Your task to perform on an android device: What is the capital of Sweden? Image 0: 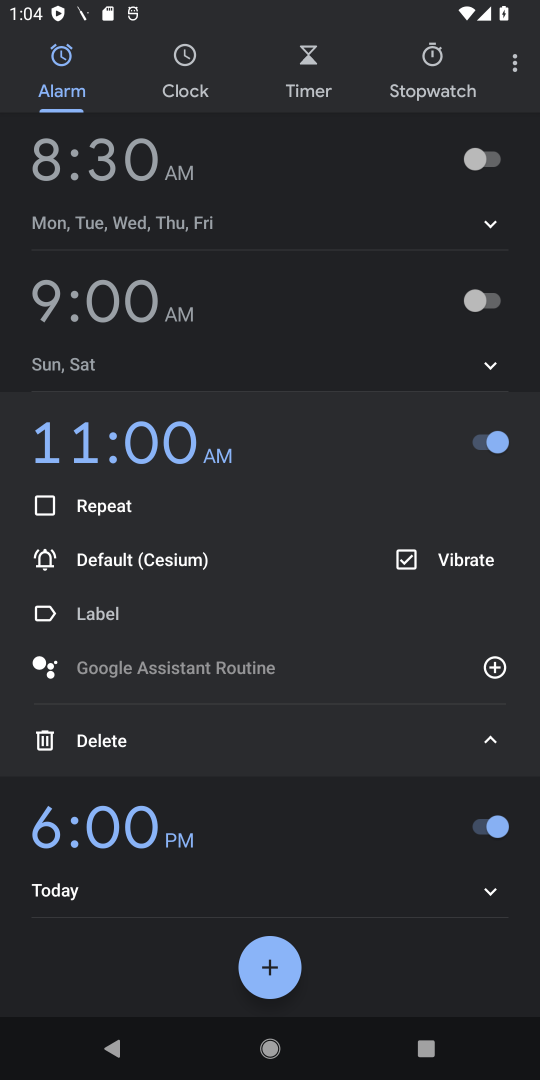
Step 0: press home button
Your task to perform on an android device: What is the capital of Sweden? Image 1: 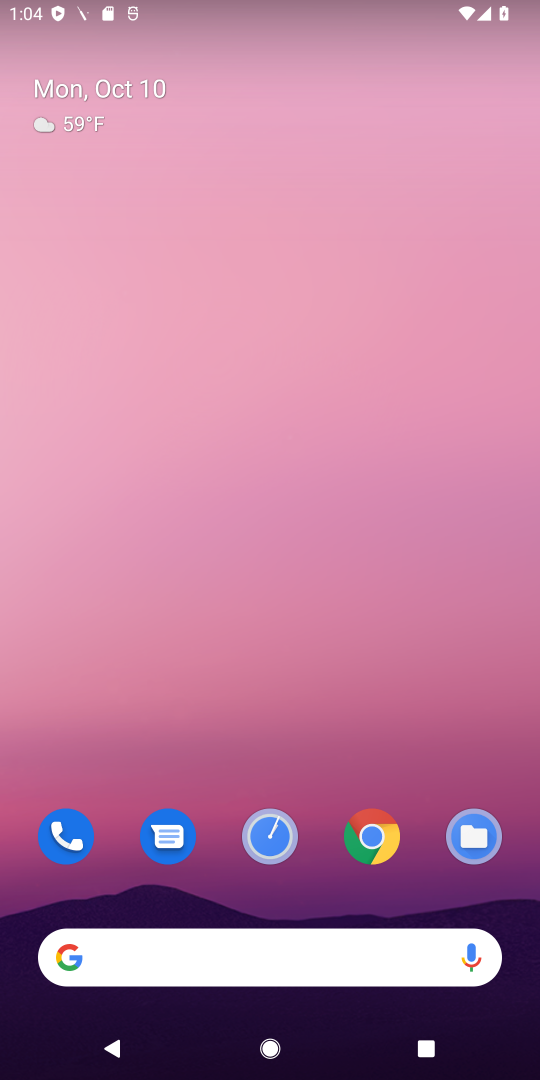
Step 1: click (389, 847)
Your task to perform on an android device: What is the capital of Sweden? Image 2: 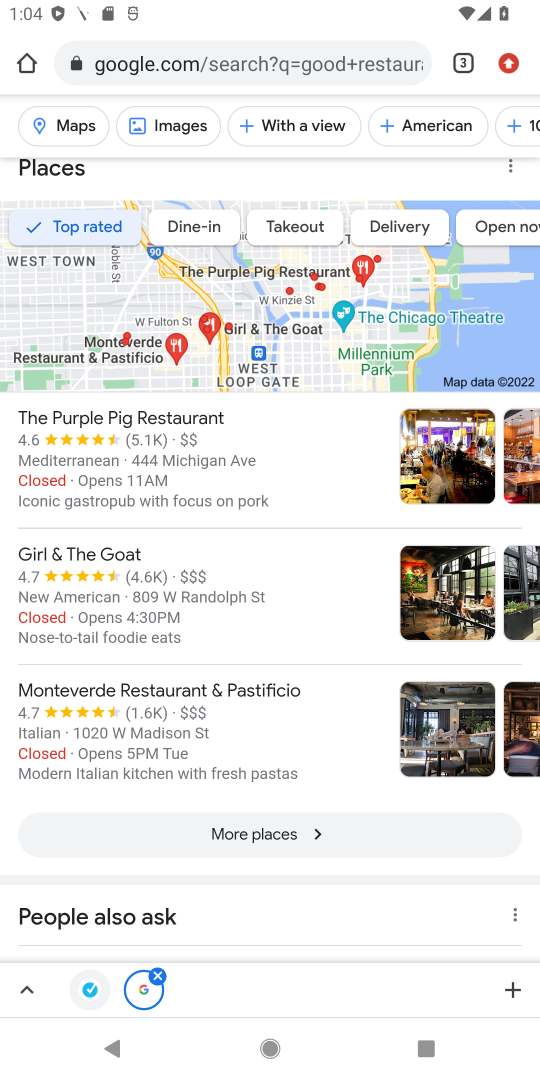
Step 2: click (337, 48)
Your task to perform on an android device: What is the capital of Sweden? Image 3: 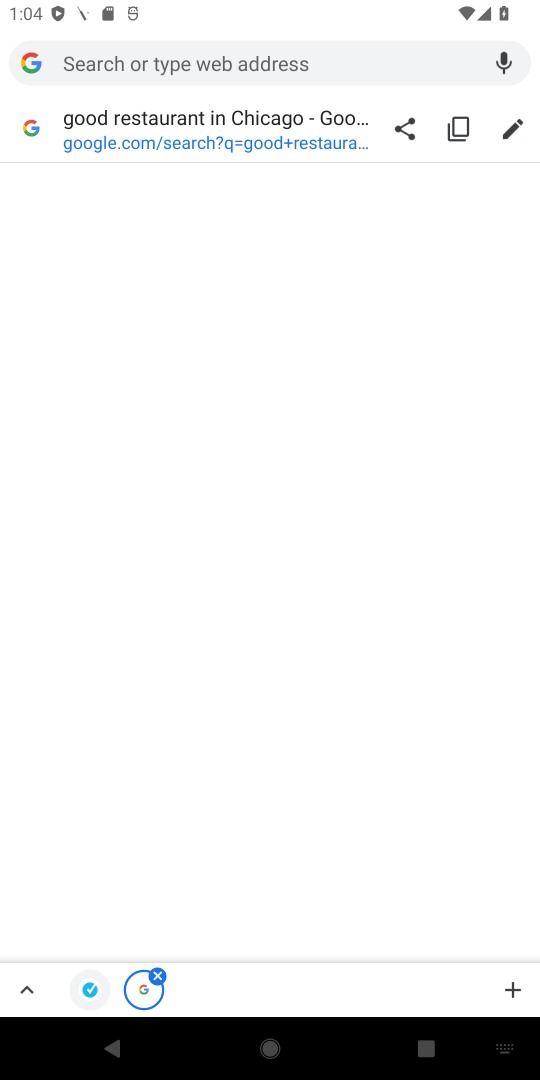
Step 3: type "sweden capital"
Your task to perform on an android device: What is the capital of Sweden? Image 4: 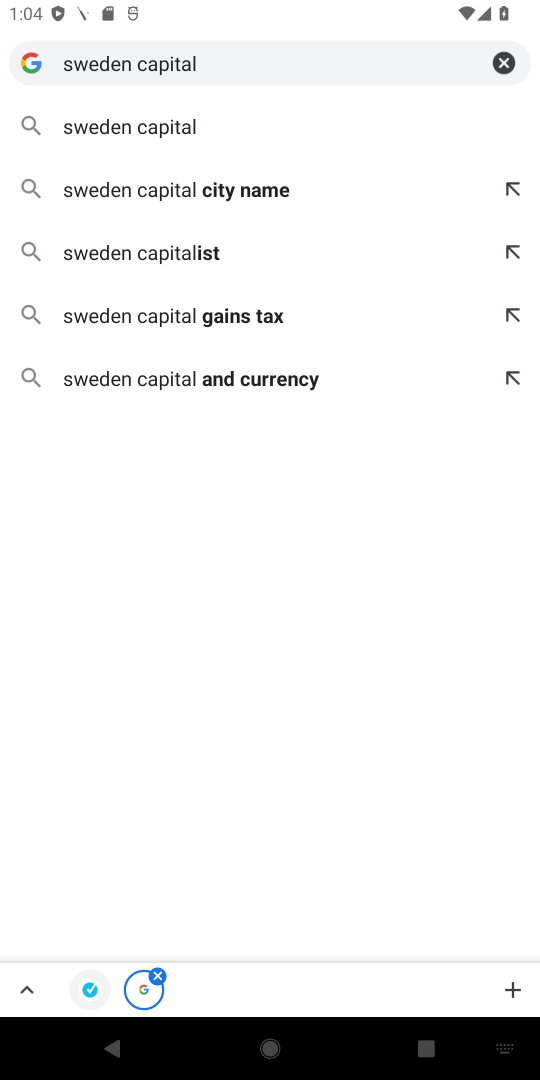
Step 4: click (324, 115)
Your task to perform on an android device: What is the capital of Sweden? Image 5: 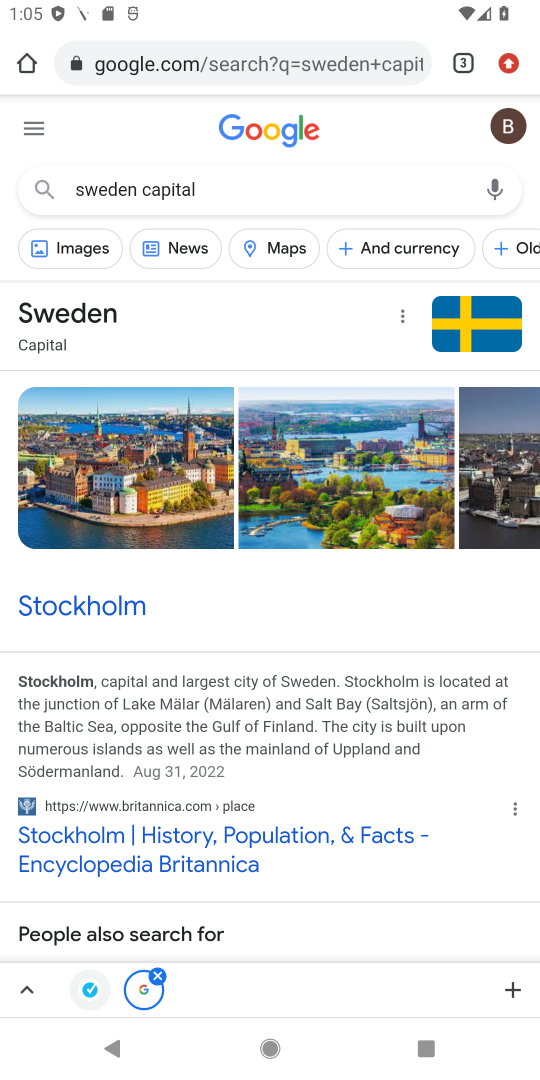
Step 5: task complete